Your task to perform on an android device: turn vacation reply on in the gmail app Image 0: 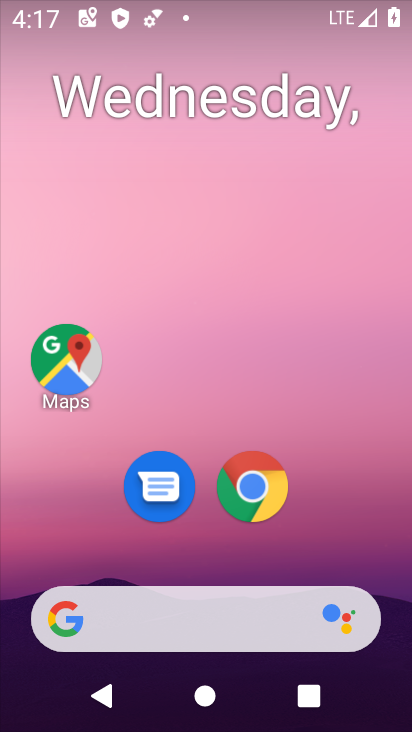
Step 0: drag from (203, 580) to (263, 170)
Your task to perform on an android device: turn vacation reply on in the gmail app Image 1: 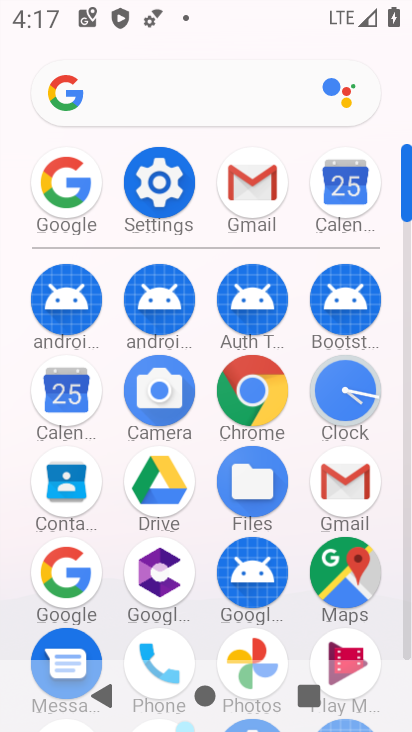
Step 1: click (339, 492)
Your task to perform on an android device: turn vacation reply on in the gmail app Image 2: 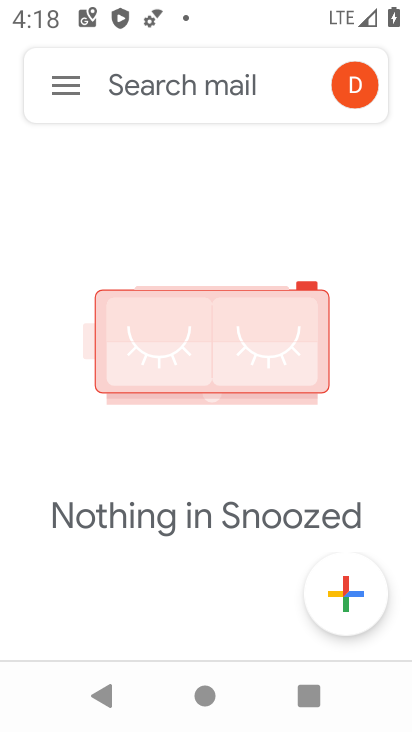
Step 2: click (345, 88)
Your task to perform on an android device: turn vacation reply on in the gmail app Image 3: 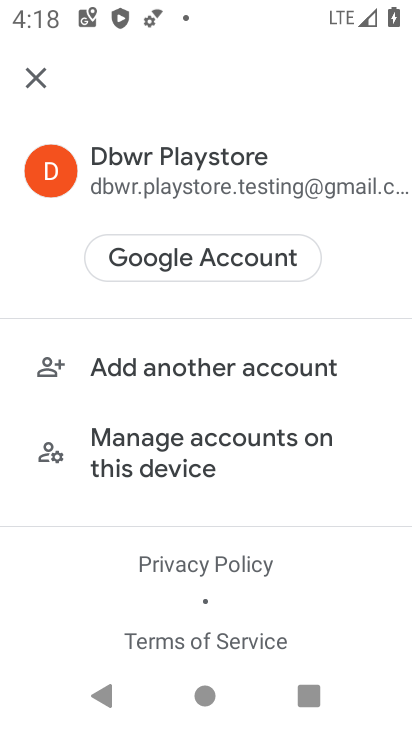
Step 3: click (48, 83)
Your task to perform on an android device: turn vacation reply on in the gmail app Image 4: 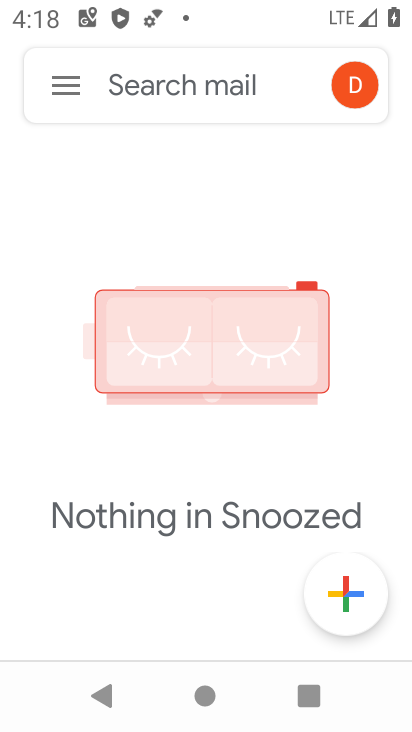
Step 4: click (76, 85)
Your task to perform on an android device: turn vacation reply on in the gmail app Image 5: 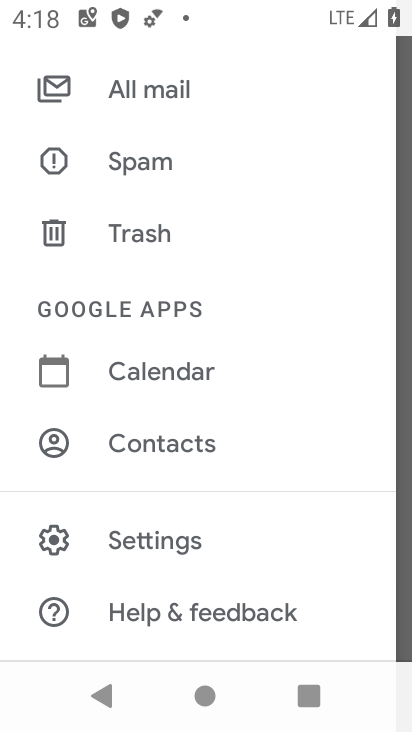
Step 5: click (160, 533)
Your task to perform on an android device: turn vacation reply on in the gmail app Image 6: 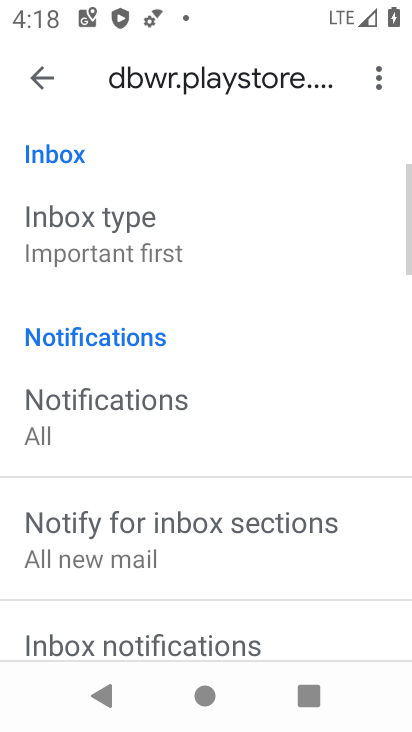
Step 6: drag from (201, 660) to (235, 262)
Your task to perform on an android device: turn vacation reply on in the gmail app Image 7: 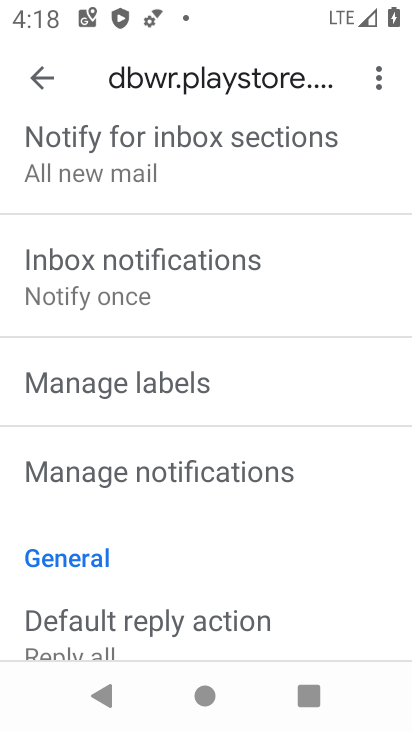
Step 7: drag from (167, 638) to (159, 340)
Your task to perform on an android device: turn vacation reply on in the gmail app Image 8: 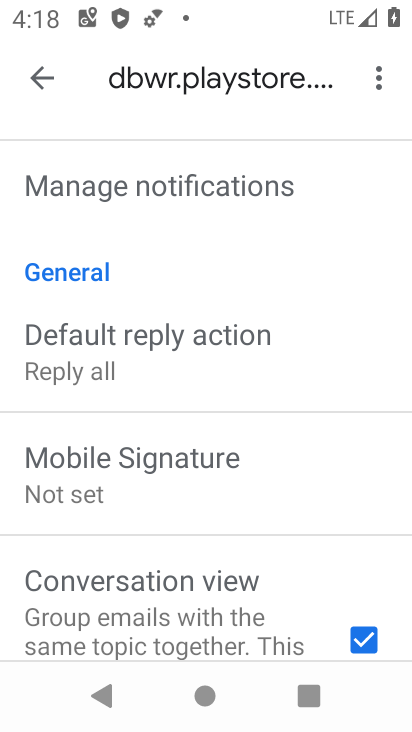
Step 8: drag from (163, 604) to (154, 398)
Your task to perform on an android device: turn vacation reply on in the gmail app Image 9: 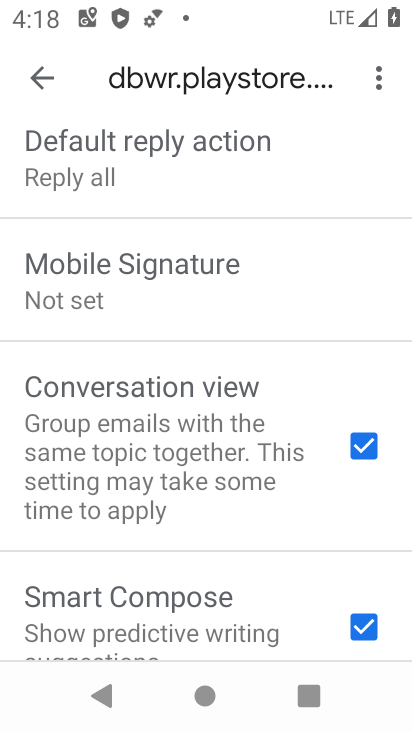
Step 9: drag from (168, 631) to (192, 396)
Your task to perform on an android device: turn vacation reply on in the gmail app Image 10: 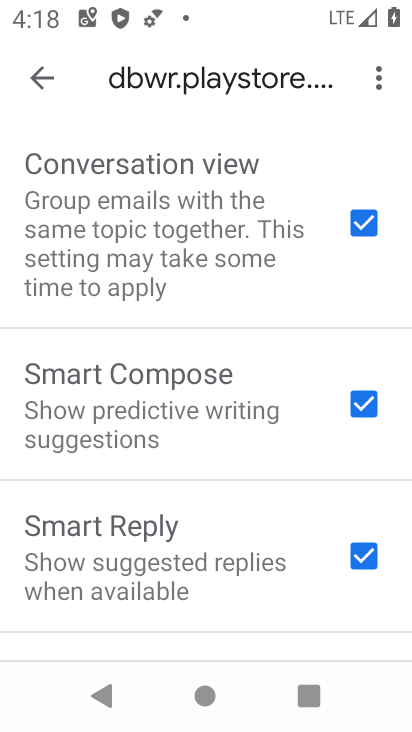
Step 10: drag from (168, 593) to (155, 307)
Your task to perform on an android device: turn vacation reply on in the gmail app Image 11: 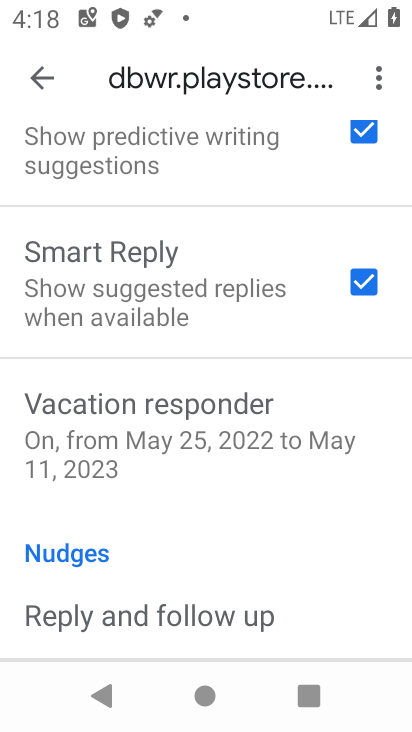
Step 11: click (147, 432)
Your task to perform on an android device: turn vacation reply on in the gmail app Image 12: 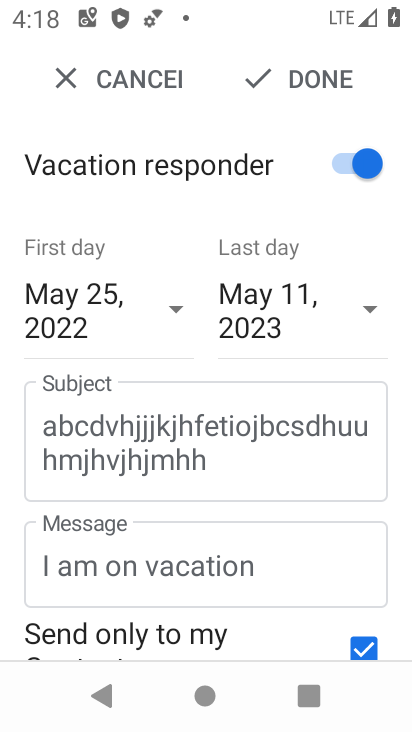
Step 12: drag from (188, 634) to (214, 352)
Your task to perform on an android device: turn vacation reply on in the gmail app Image 13: 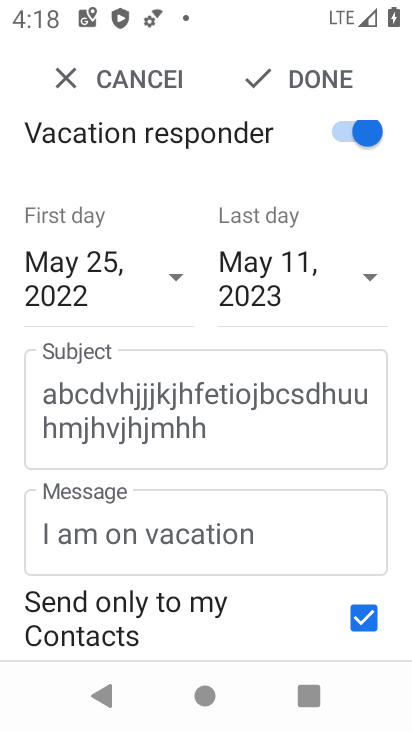
Step 13: click (309, 48)
Your task to perform on an android device: turn vacation reply on in the gmail app Image 14: 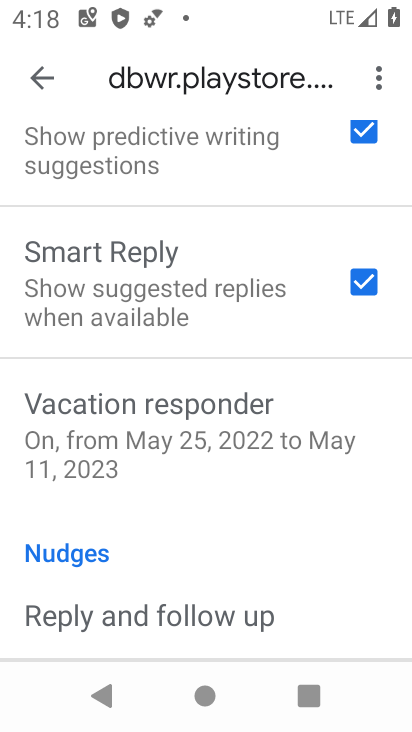
Step 14: task complete